Your task to perform on an android device: Search for vegetarian restaurants on Maps Image 0: 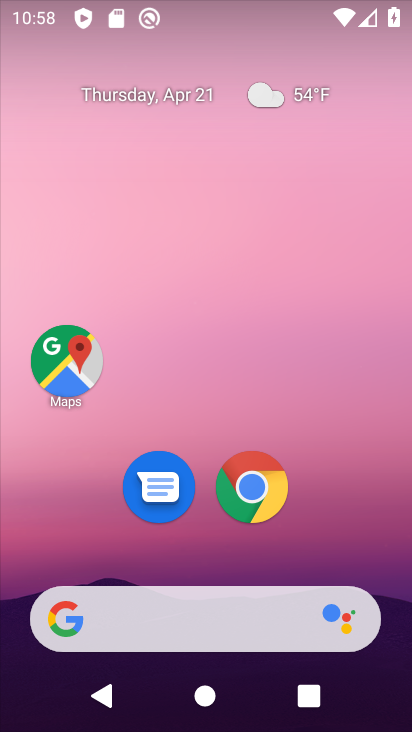
Step 0: press home button
Your task to perform on an android device: Search for vegetarian restaurants on Maps Image 1: 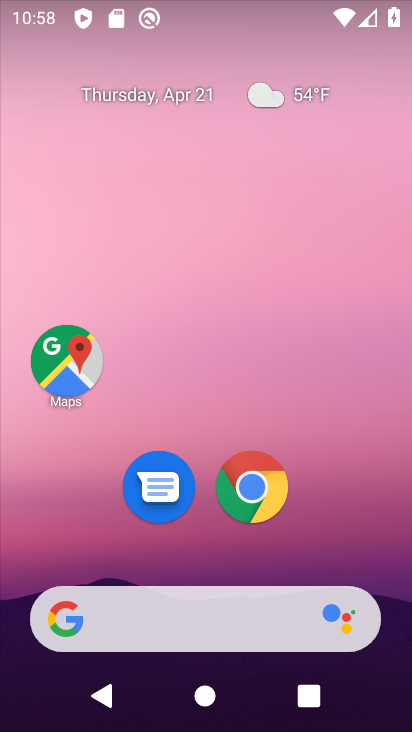
Step 1: drag from (351, 489) to (330, 200)
Your task to perform on an android device: Search for vegetarian restaurants on Maps Image 2: 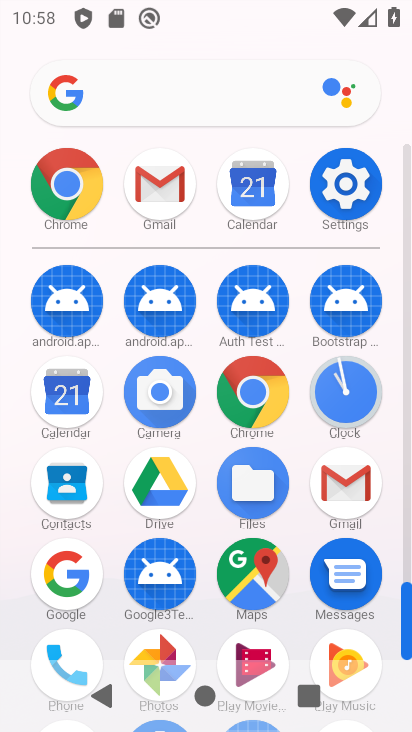
Step 2: click (225, 589)
Your task to perform on an android device: Search for vegetarian restaurants on Maps Image 3: 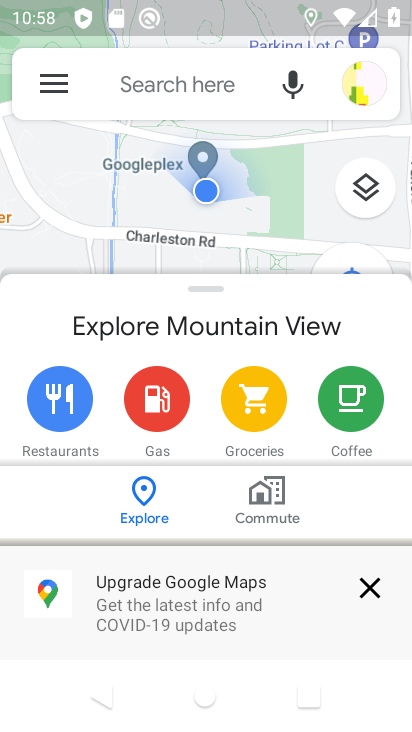
Step 3: click (251, 78)
Your task to perform on an android device: Search for vegetarian restaurants on Maps Image 4: 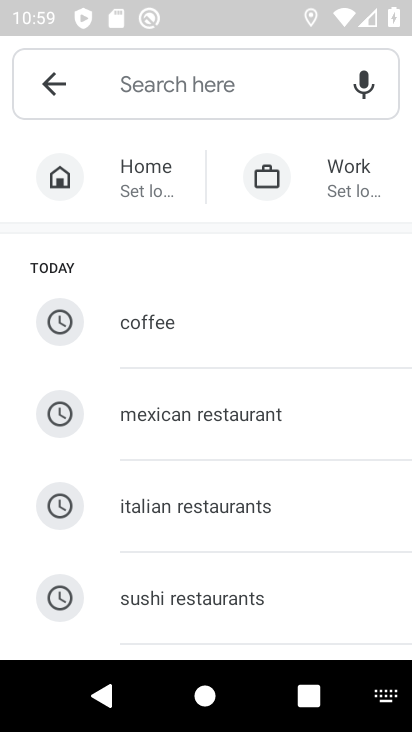
Step 4: type "vegetarian restaurants"
Your task to perform on an android device: Search for vegetarian restaurants on Maps Image 5: 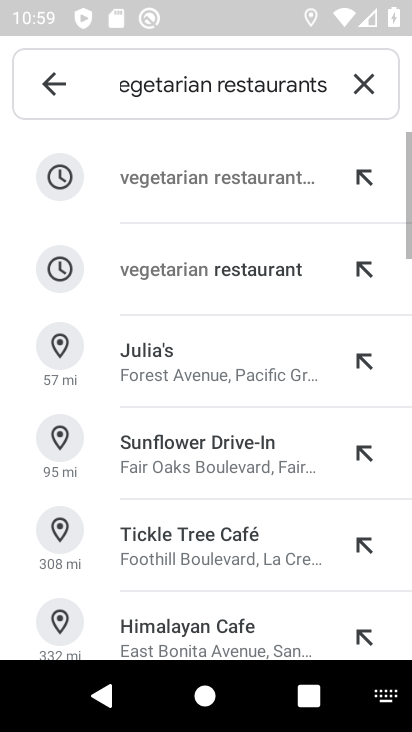
Step 5: click (189, 180)
Your task to perform on an android device: Search for vegetarian restaurants on Maps Image 6: 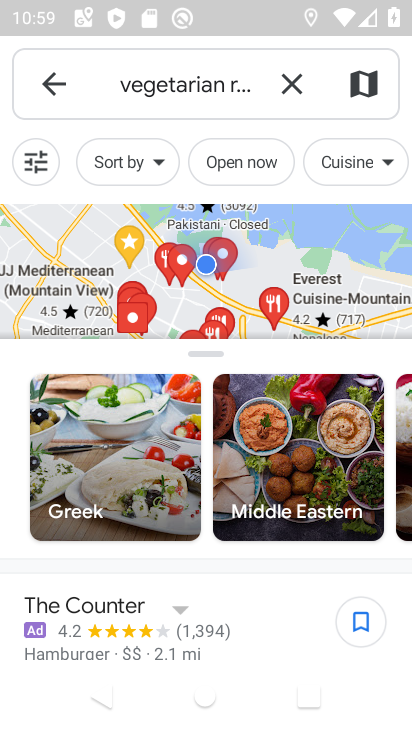
Step 6: task complete